Your task to perform on an android device: Go to accessibility settings Image 0: 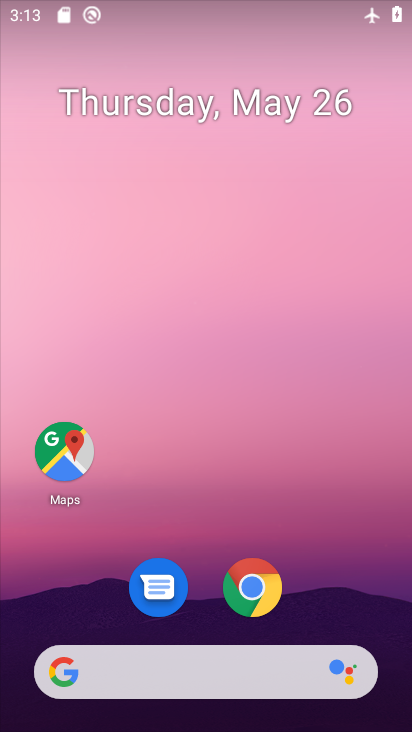
Step 0: drag from (217, 561) to (132, 183)
Your task to perform on an android device: Go to accessibility settings Image 1: 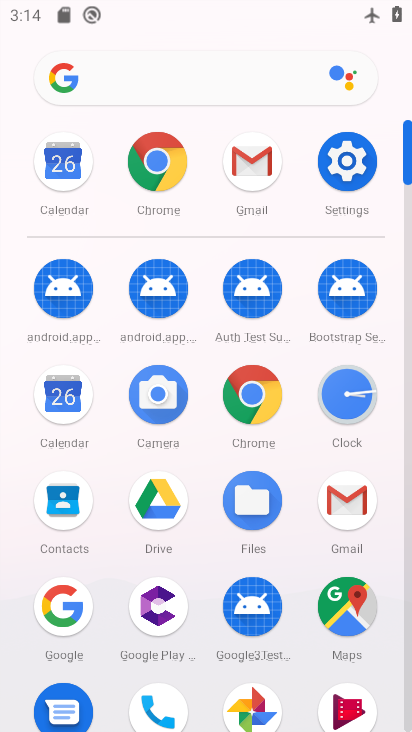
Step 1: click (344, 169)
Your task to perform on an android device: Go to accessibility settings Image 2: 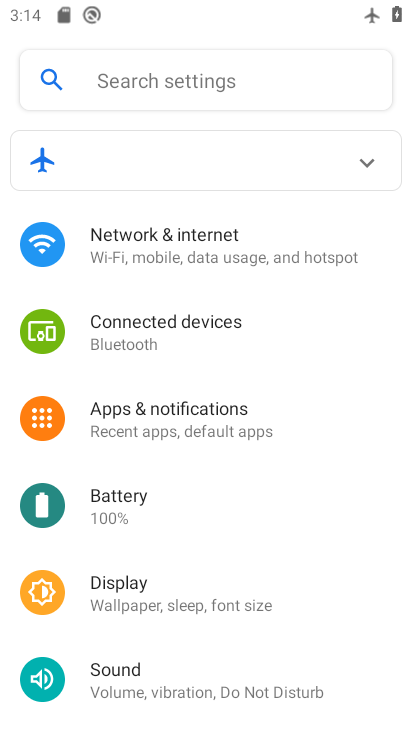
Step 2: drag from (198, 514) to (172, 172)
Your task to perform on an android device: Go to accessibility settings Image 3: 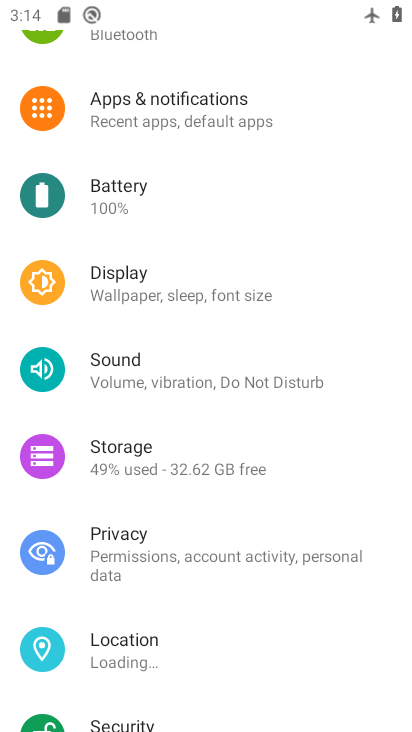
Step 3: drag from (166, 422) to (166, 117)
Your task to perform on an android device: Go to accessibility settings Image 4: 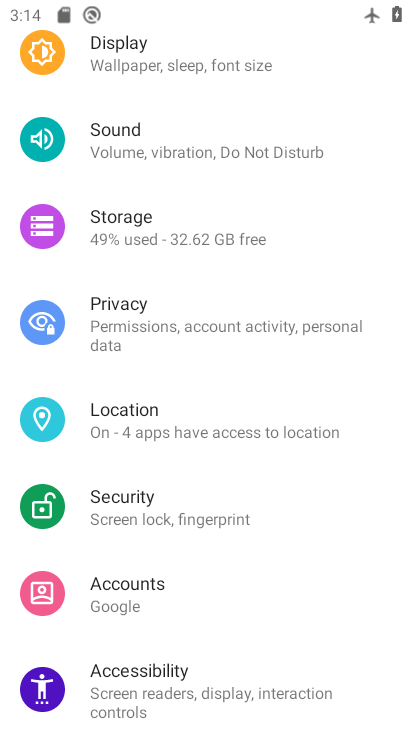
Step 4: drag from (179, 387) to (179, 155)
Your task to perform on an android device: Go to accessibility settings Image 5: 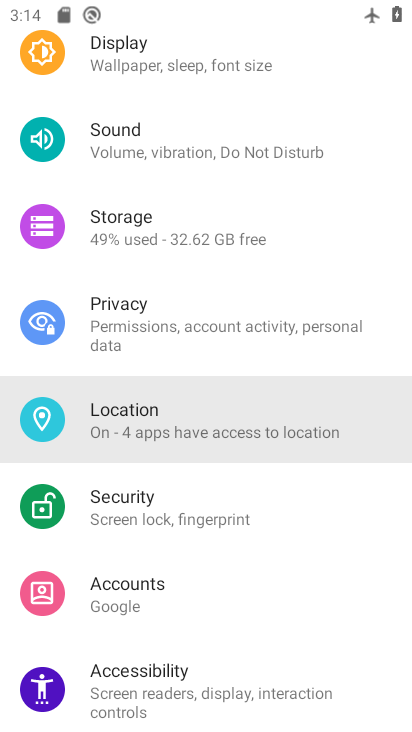
Step 5: drag from (179, 375) to (192, 198)
Your task to perform on an android device: Go to accessibility settings Image 6: 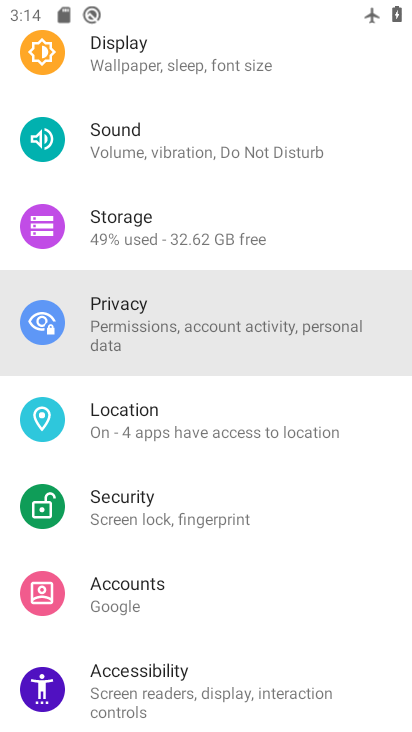
Step 6: drag from (183, 461) to (189, 182)
Your task to perform on an android device: Go to accessibility settings Image 7: 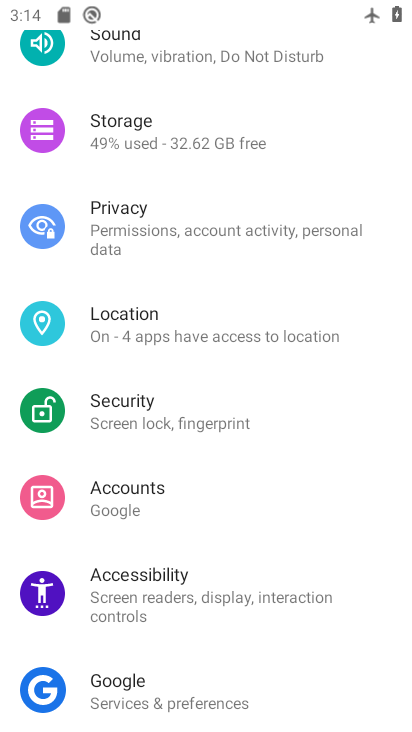
Step 7: drag from (177, 493) to (166, 154)
Your task to perform on an android device: Go to accessibility settings Image 8: 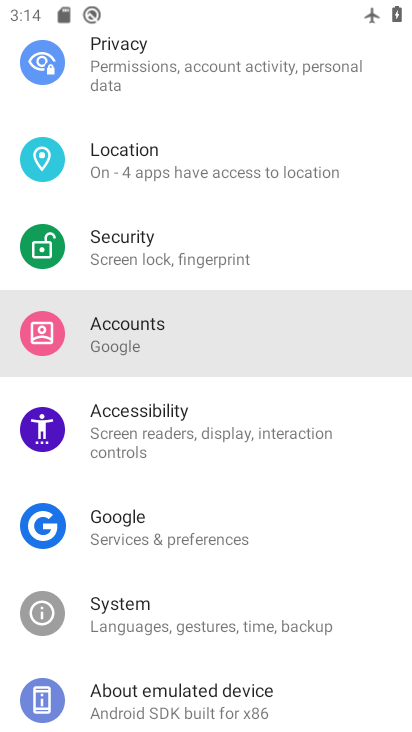
Step 8: drag from (223, 306) to (223, 166)
Your task to perform on an android device: Go to accessibility settings Image 9: 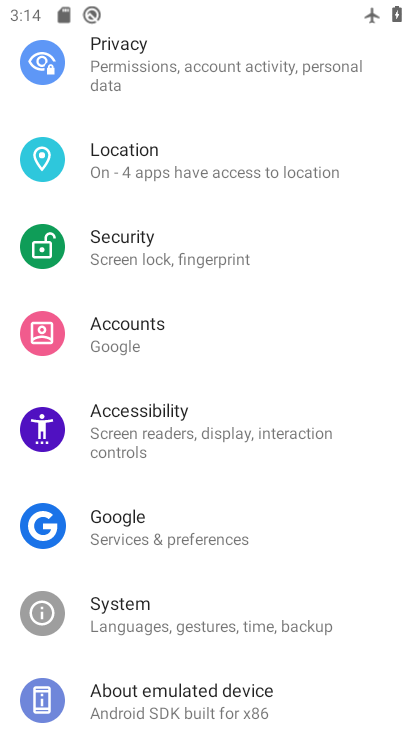
Step 9: click (141, 433)
Your task to perform on an android device: Go to accessibility settings Image 10: 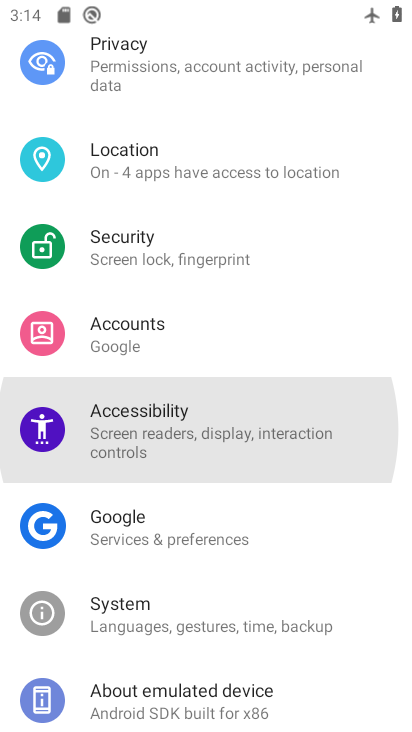
Step 10: click (141, 434)
Your task to perform on an android device: Go to accessibility settings Image 11: 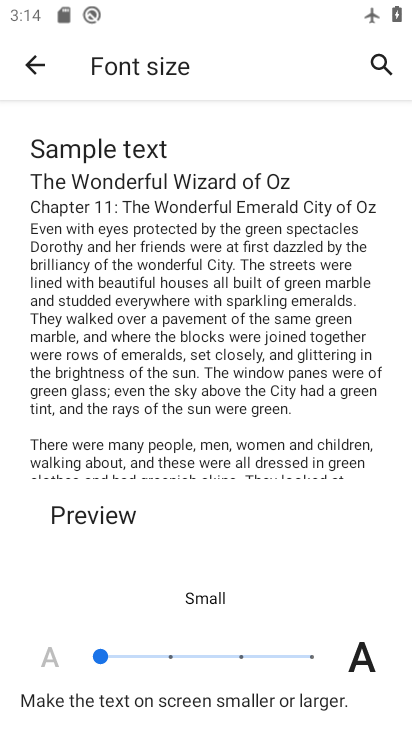
Step 11: click (28, 72)
Your task to perform on an android device: Go to accessibility settings Image 12: 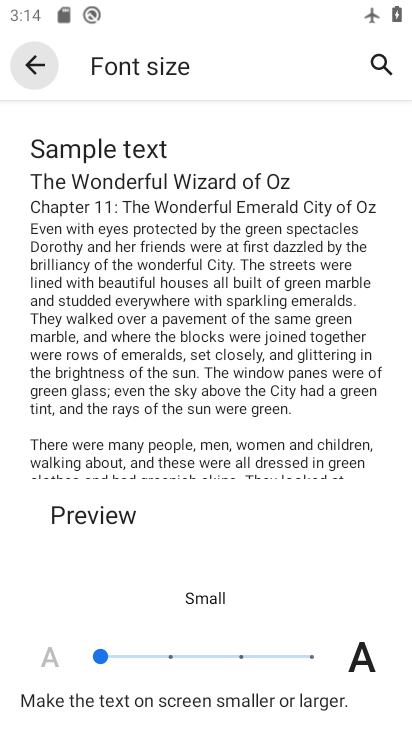
Step 12: click (34, 67)
Your task to perform on an android device: Go to accessibility settings Image 13: 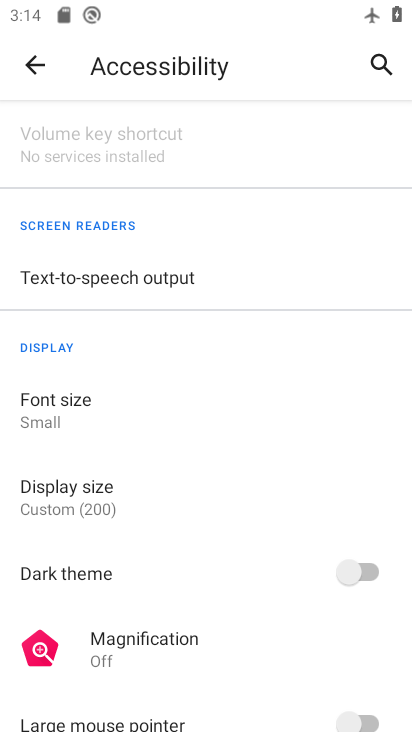
Step 13: task complete